Your task to perform on an android device: toggle airplane mode Image 0: 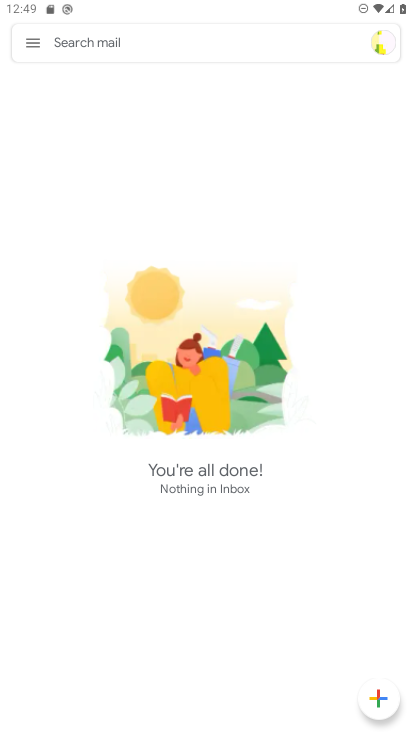
Step 0: press home button
Your task to perform on an android device: toggle airplane mode Image 1: 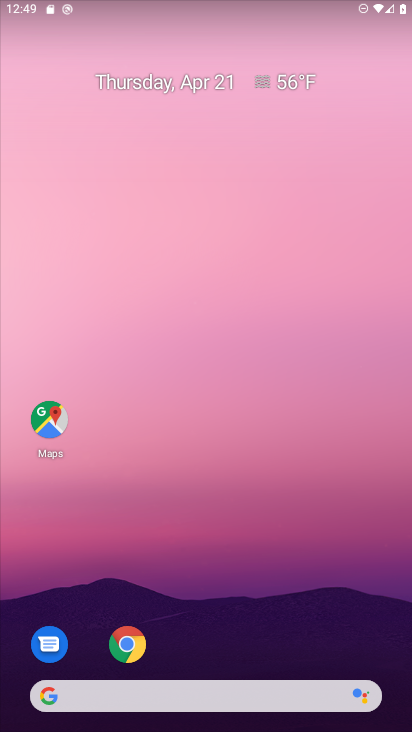
Step 1: drag from (208, 654) to (266, 127)
Your task to perform on an android device: toggle airplane mode Image 2: 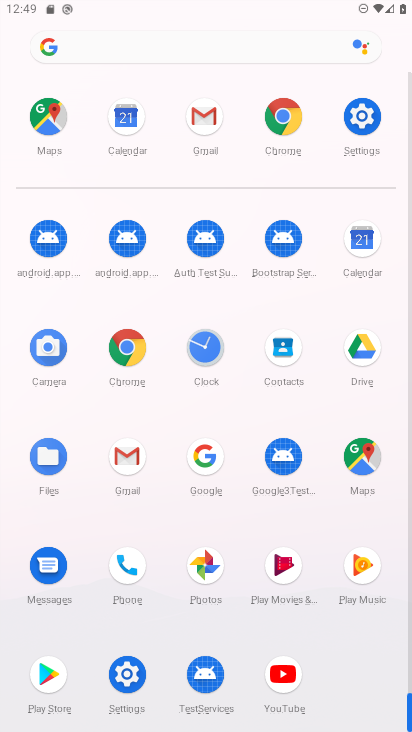
Step 2: click (360, 121)
Your task to perform on an android device: toggle airplane mode Image 3: 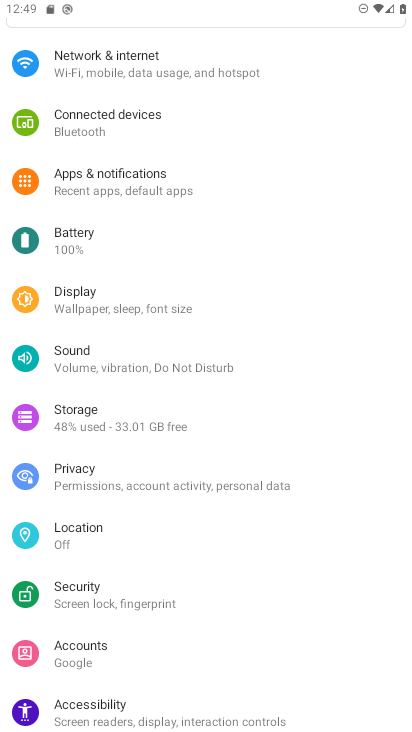
Step 3: drag from (126, 131) to (93, 602)
Your task to perform on an android device: toggle airplane mode Image 4: 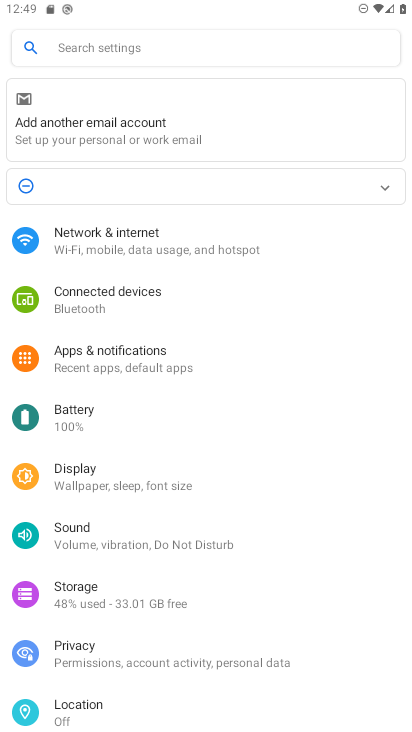
Step 4: click (193, 242)
Your task to perform on an android device: toggle airplane mode Image 5: 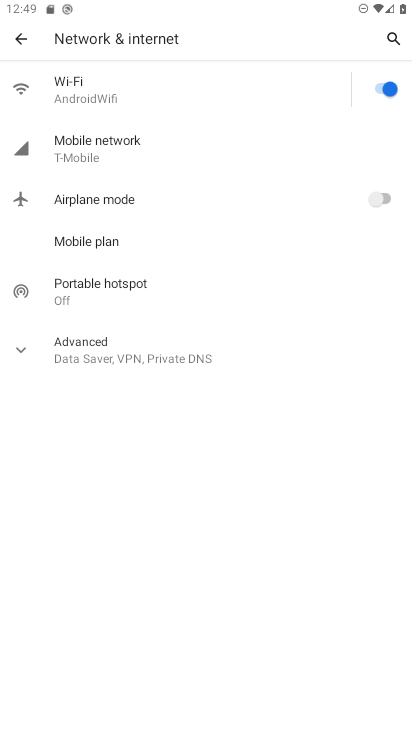
Step 5: click (393, 197)
Your task to perform on an android device: toggle airplane mode Image 6: 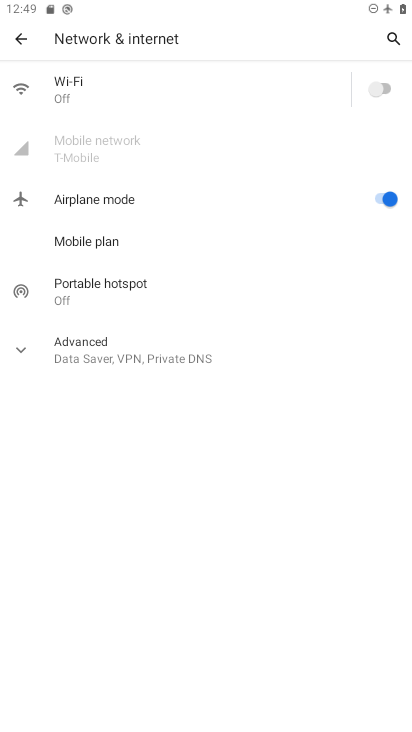
Step 6: task complete